Your task to perform on an android device: Show the shopping cart on costco. Image 0: 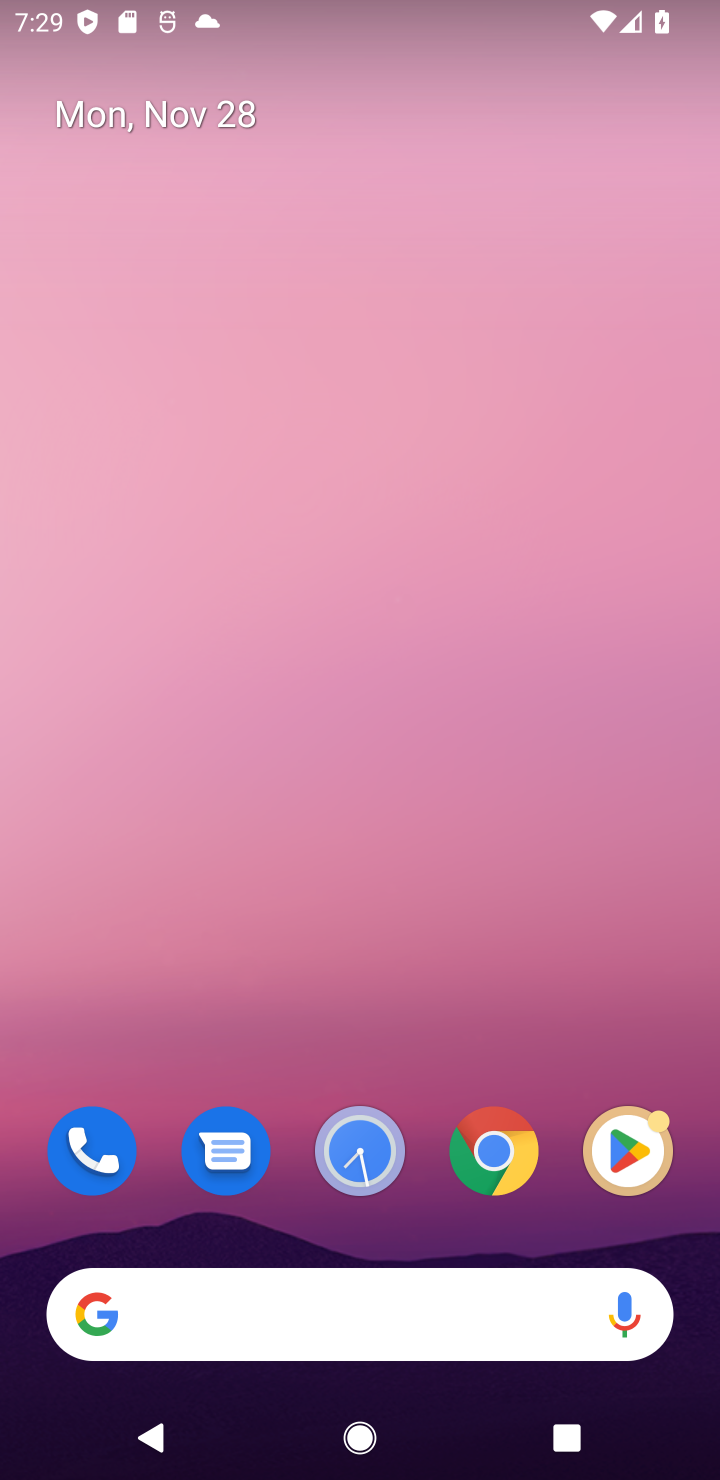
Step 0: click (314, 1307)
Your task to perform on an android device: Show the shopping cart on costco. Image 1: 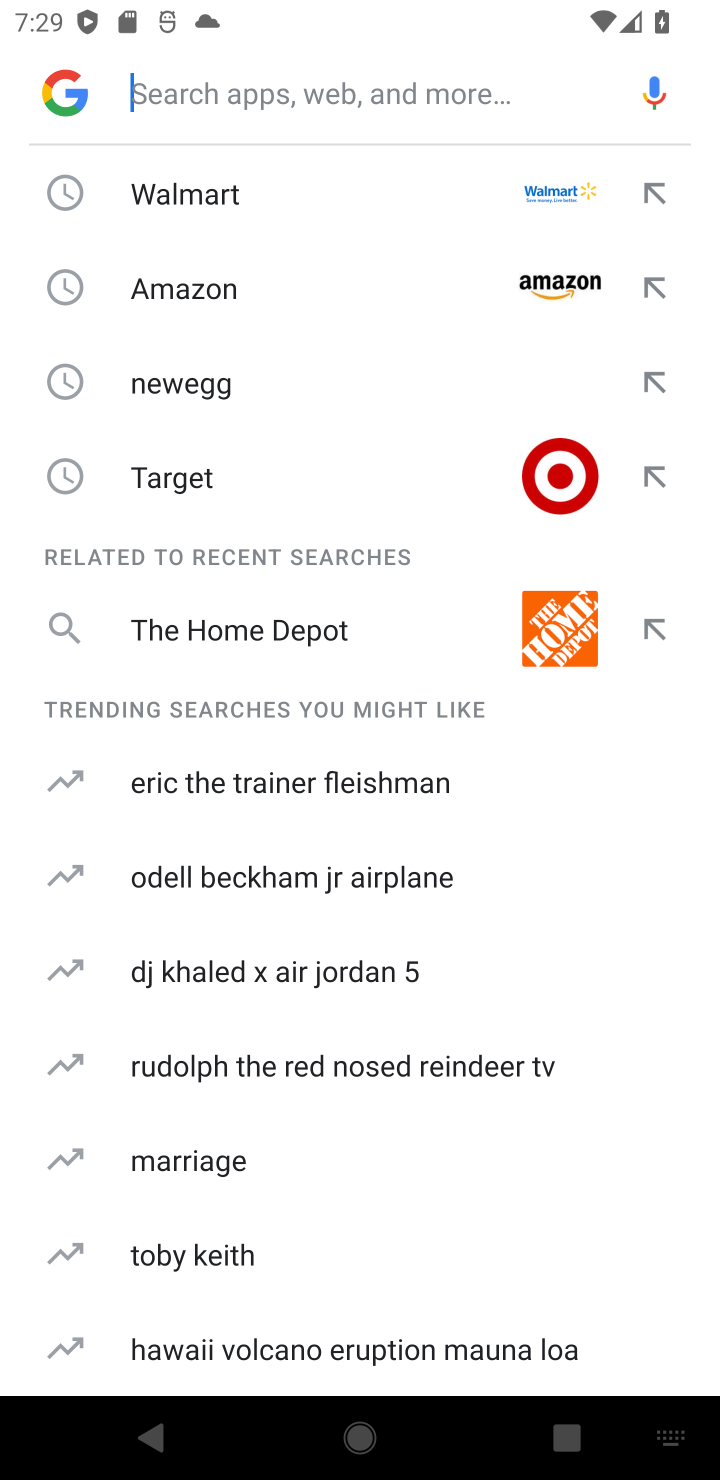
Step 1: click (262, 165)
Your task to perform on an android device: Show the shopping cart on costco. Image 2: 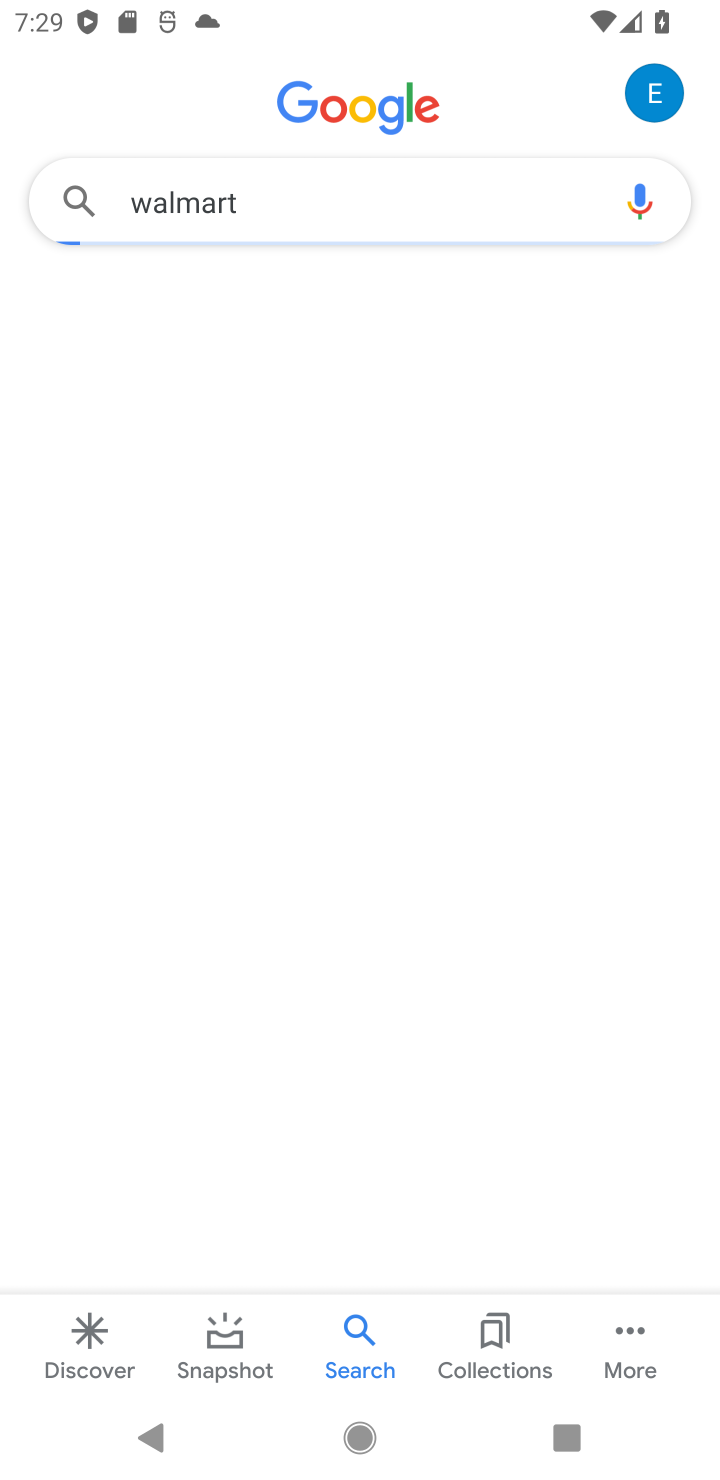
Step 2: task complete